Your task to perform on an android device: Open the stopwatch Image 0: 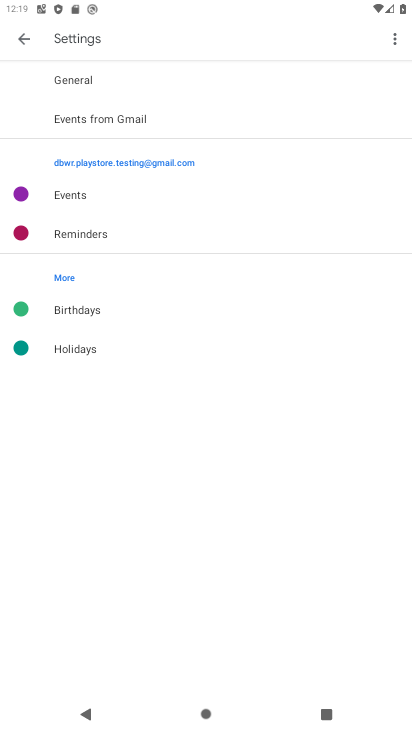
Step 0: press home button
Your task to perform on an android device: Open the stopwatch Image 1: 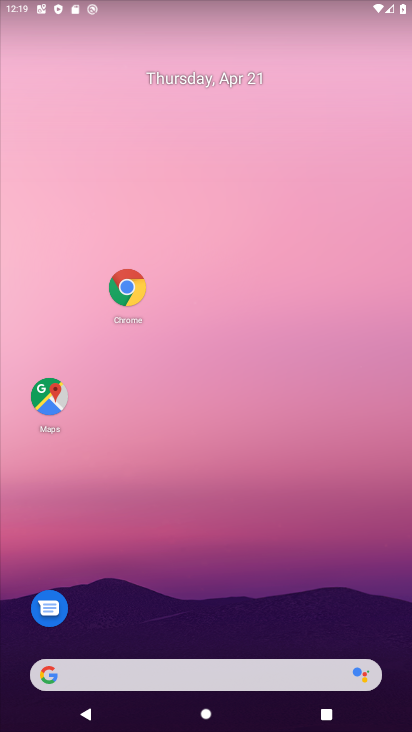
Step 1: drag from (210, 553) to (80, 80)
Your task to perform on an android device: Open the stopwatch Image 2: 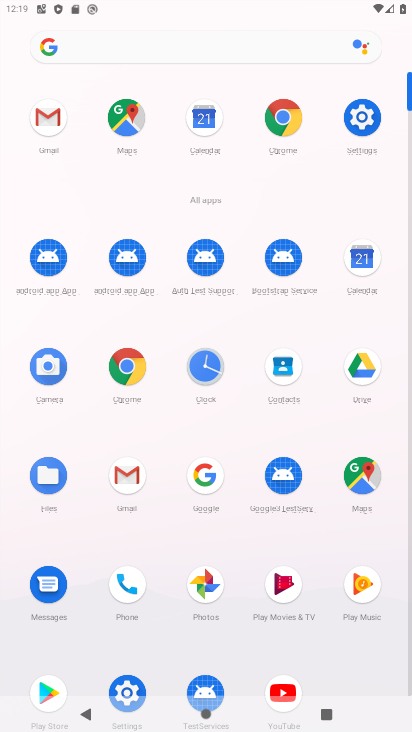
Step 2: click (197, 368)
Your task to perform on an android device: Open the stopwatch Image 3: 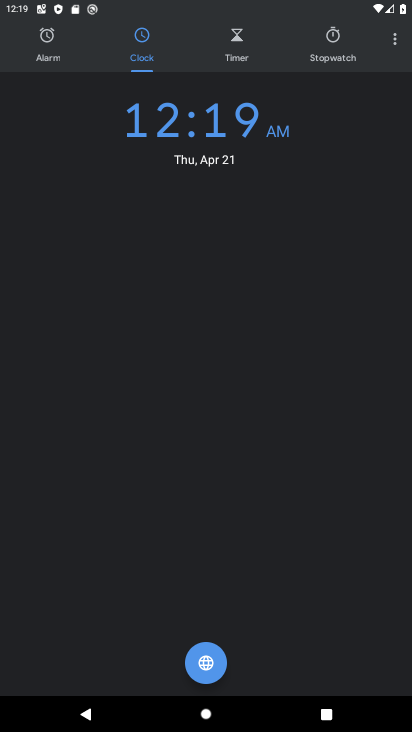
Step 3: click (339, 50)
Your task to perform on an android device: Open the stopwatch Image 4: 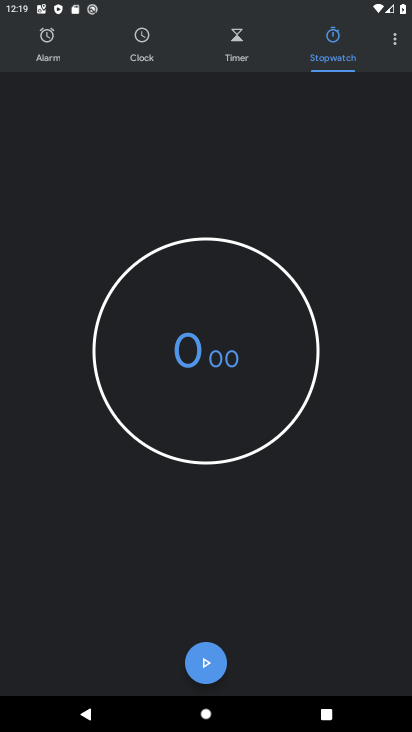
Step 4: click (194, 667)
Your task to perform on an android device: Open the stopwatch Image 5: 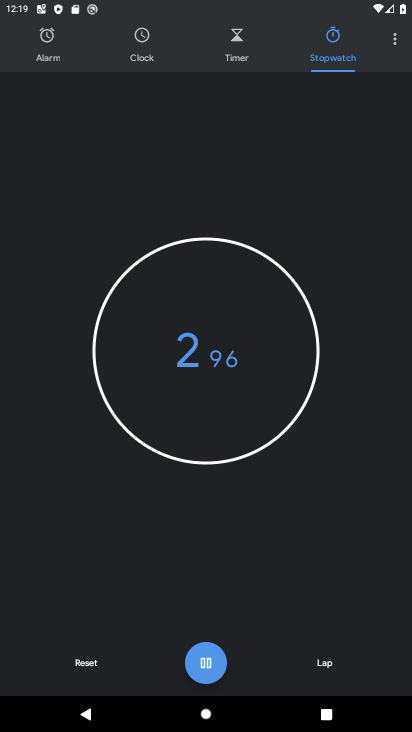
Step 5: click (218, 660)
Your task to perform on an android device: Open the stopwatch Image 6: 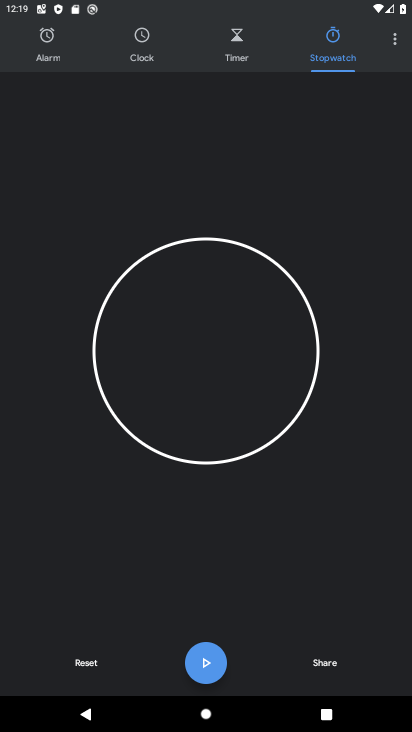
Step 6: task complete